Your task to perform on an android device: Play the last video I watched on Youtube Image 0: 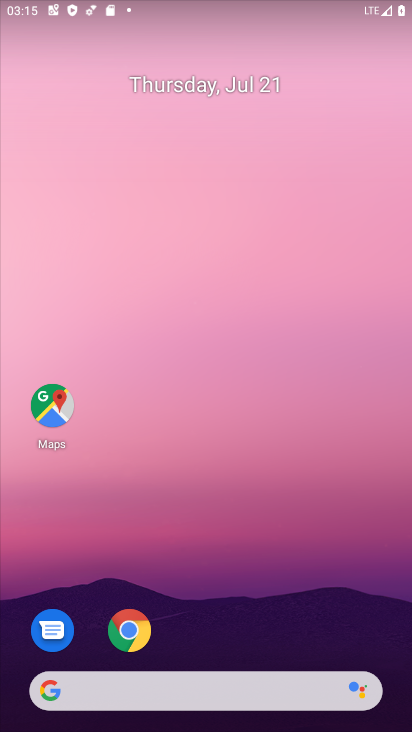
Step 0: drag from (211, 636) to (409, 256)
Your task to perform on an android device: Play the last video I watched on Youtube Image 1: 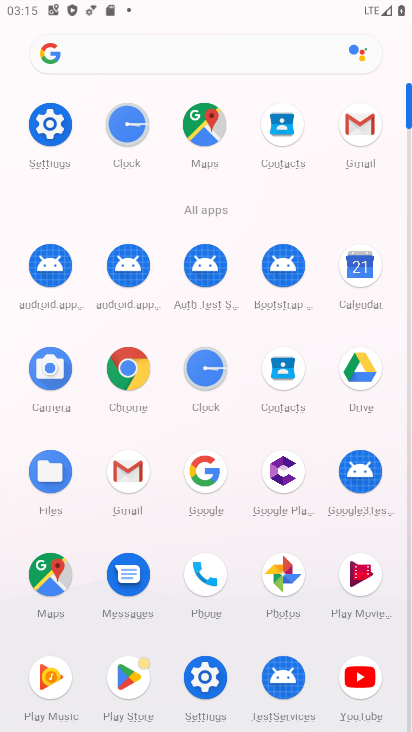
Step 1: click (353, 697)
Your task to perform on an android device: Play the last video I watched on Youtube Image 2: 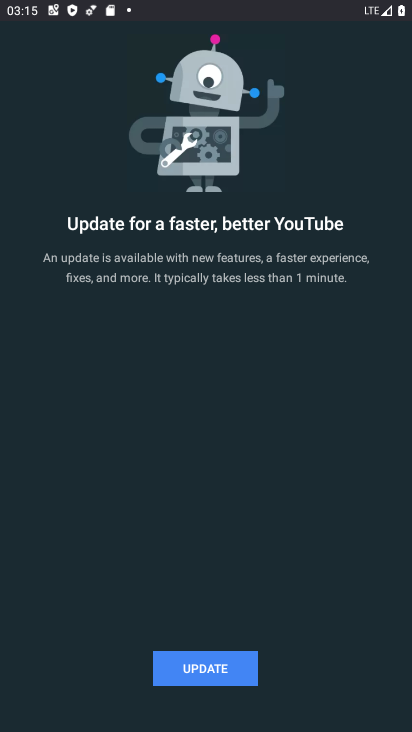
Step 2: click (191, 676)
Your task to perform on an android device: Play the last video I watched on Youtube Image 3: 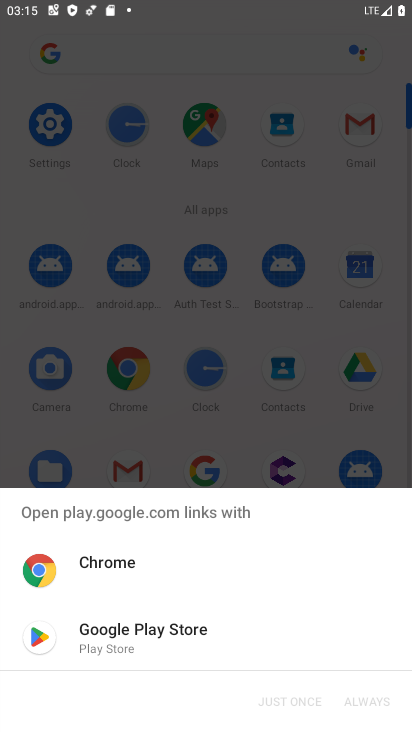
Step 3: click (129, 642)
Your task to perform on an android device: Play the last video I watched on Youtube Image 4: 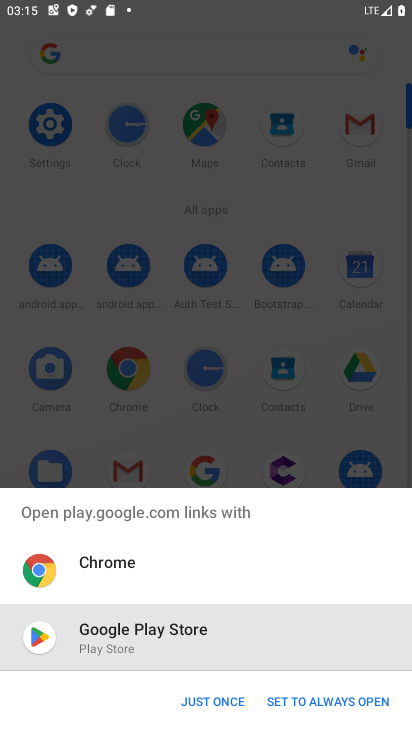
Step 4: click (227, 708)
Your task to perform on an android device: Play the last video I watched on Youtube Image 5: 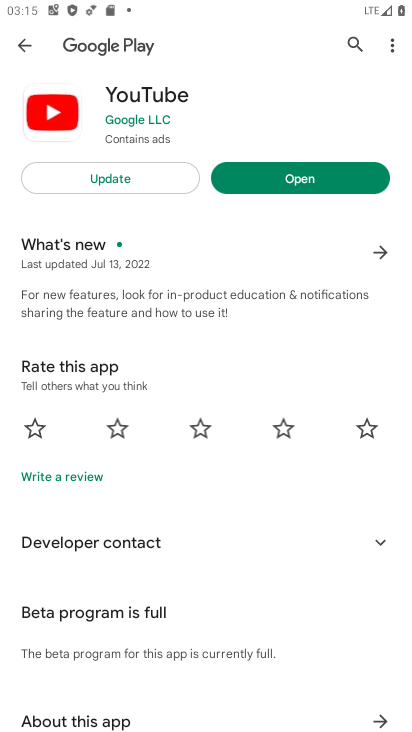
Step 5: click (118, 175)
Your task to perform on an android device: Play the last video I watched on Youtube Image 6: 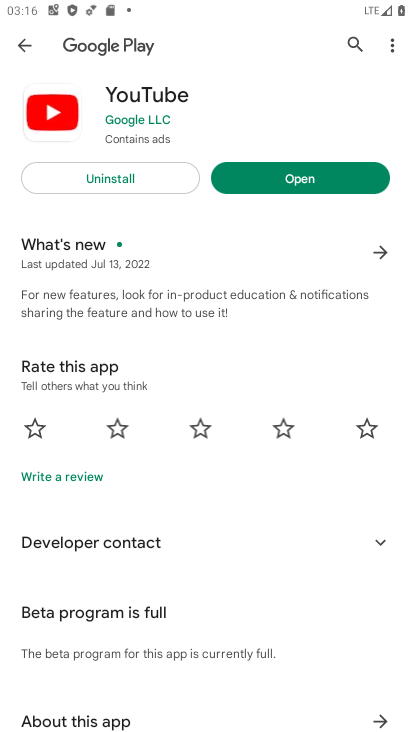
Step 6: click (285, 168)
Your task to perform on an android device: Play the last video I watched on Youtube Image 7: 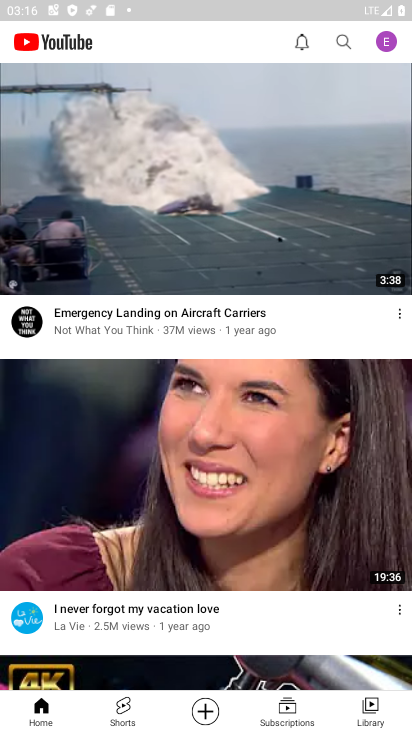
Step 7: click (372, 703)
Your task to perform on an android device: Play the last video I watched on Youtube Image 8: 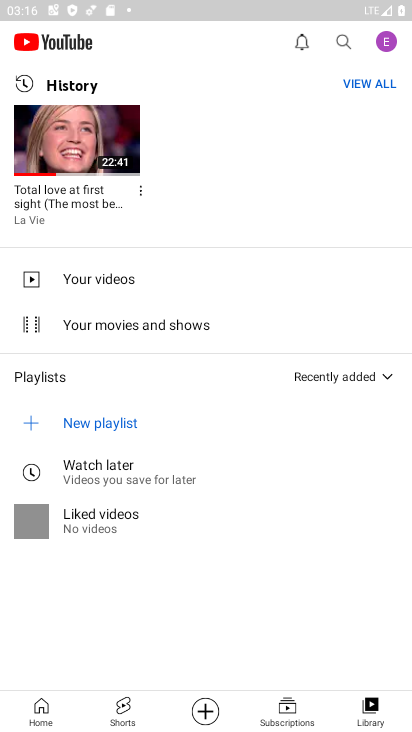
Step 8: click (63, 151)
Your task to perform on an android device: Play the last video I watched on Youtube Image 9: 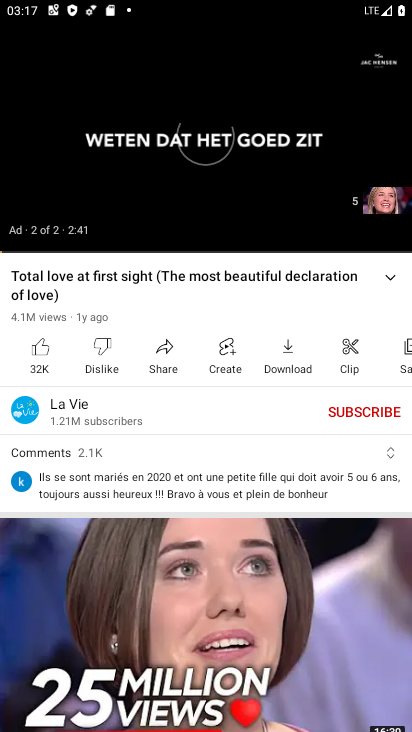
Step 9: click (371, 193)
Your task to perform on an android device: Play the last video I watched on Youtube Image 10: 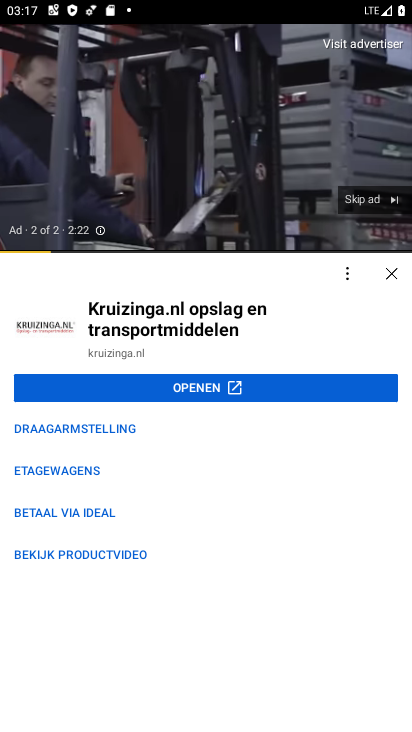
Step 10: click (380, 213)
Your task to perform on an android device: Play the last video I watched on Youtube Image 11: 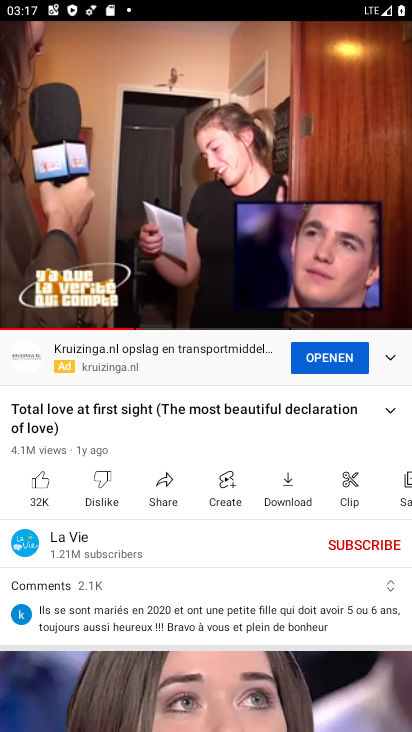
Step 11: click (378, 205)
Your task to perform on an android device: Play the last video I watched on Youtube Image 12: 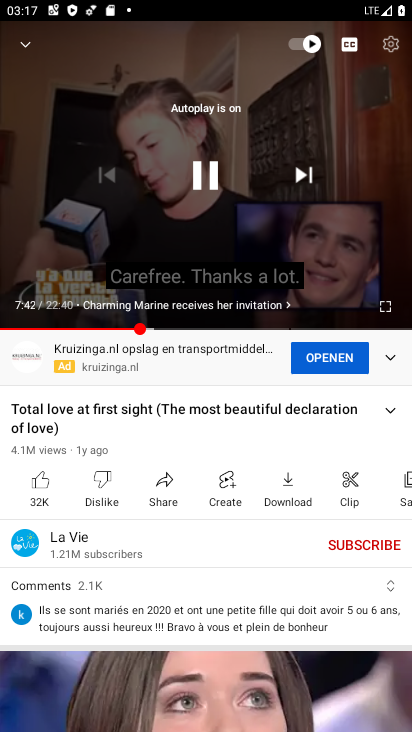
Step 12: task complete